Your task to perform on an android device: turn off location Image 0: 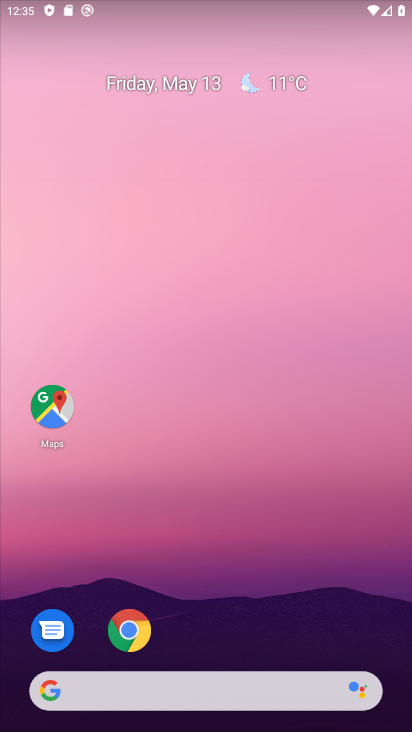
Step 0: drag from (218, 601) to (250, 5)
Your task to perform on an android device: turn off location Image 1: 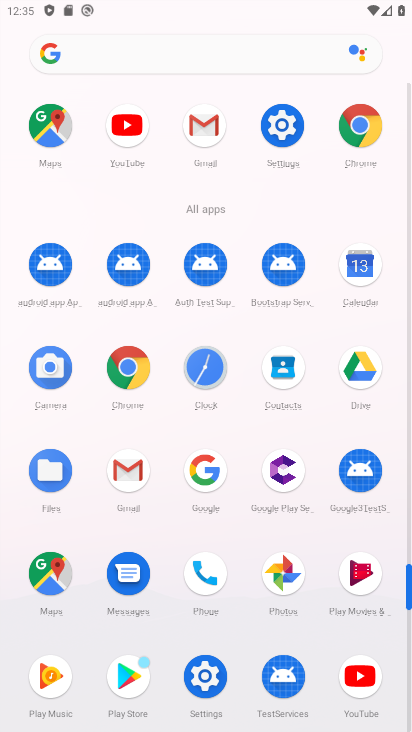
Step 1: click (287, 181)
Your task to perform on an android device: turn off location Image 2: 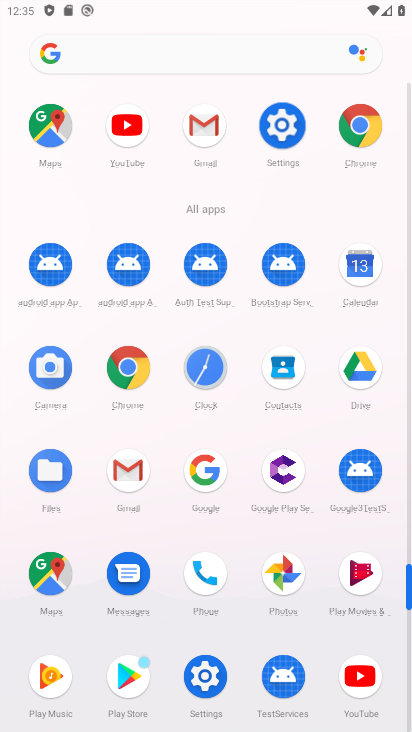
Step 2: click (279, 138)
Your task to perform on an android device: turn off location Image 3: 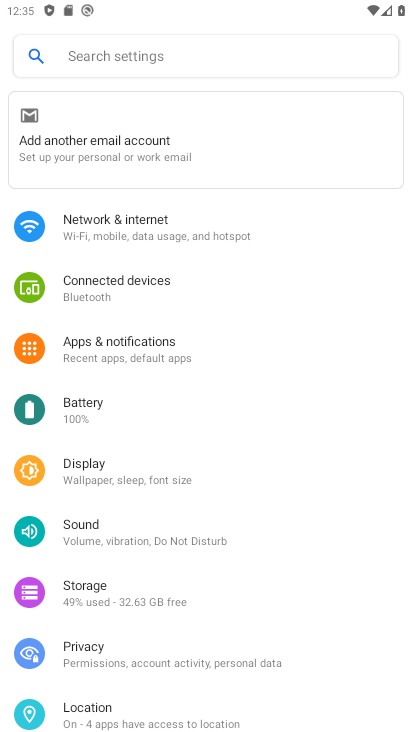
Step 3: click (117, 709)
Your task to perform on an android device: turn off location Image 4: 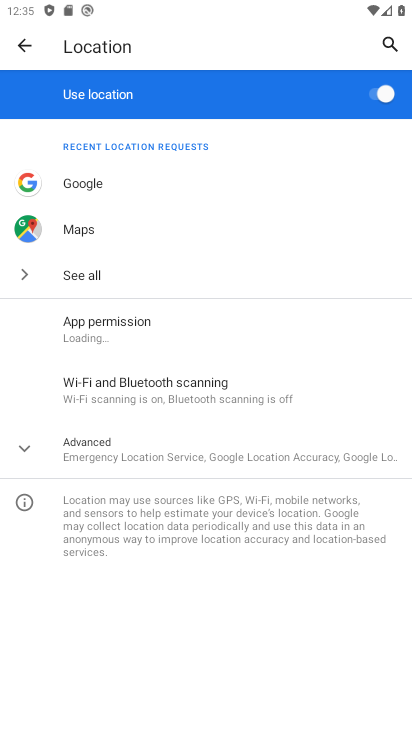
Step 4: click (369, 91)
Your task to perform on an android device: turn off location Image 5: 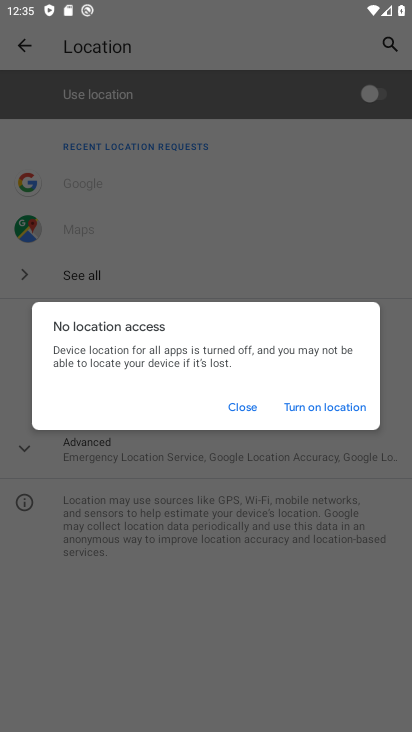
Step 5: task complete